Your task to perform on an android device: Search for Mexican restaurants on Maps Image 0: 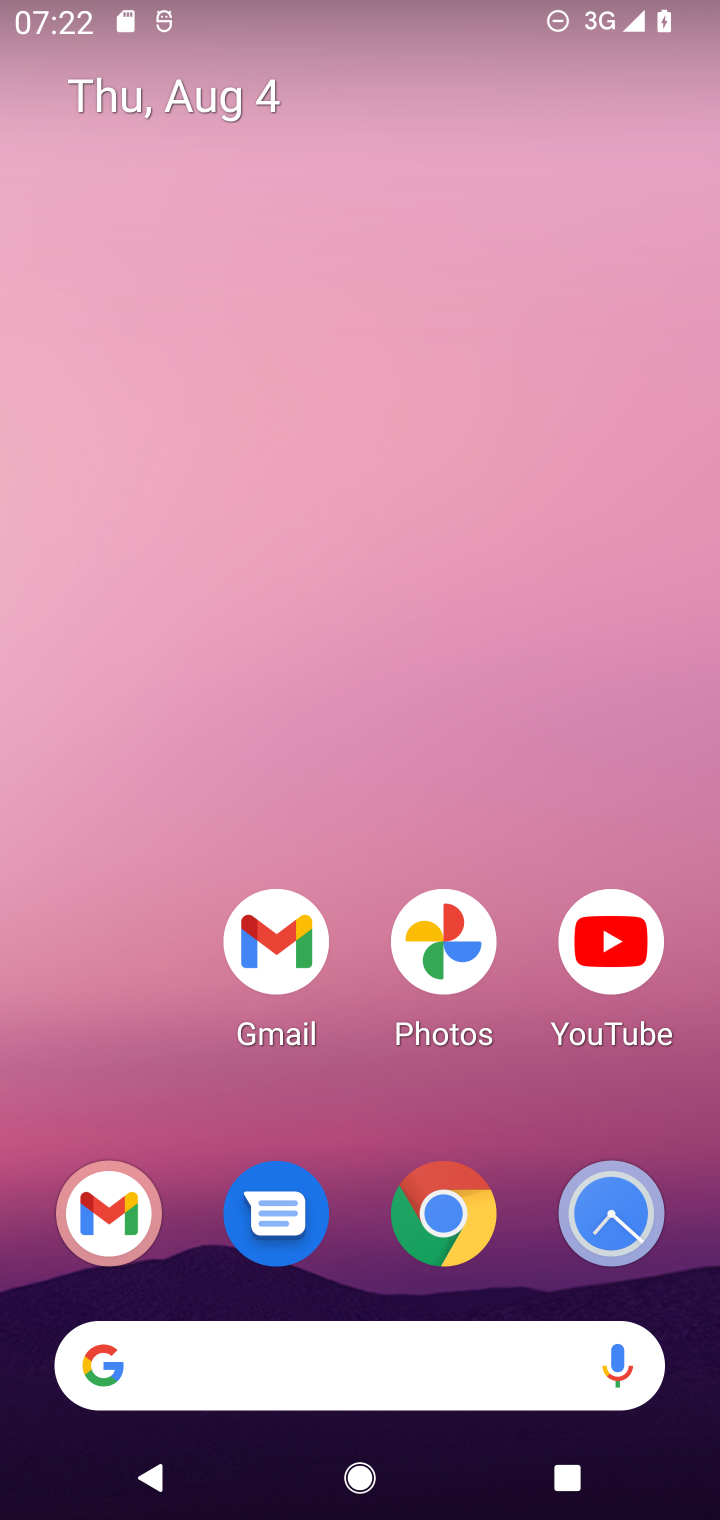
Step 0: drag from (186, 1109) to (199, 291)
Your task to perform on an android device: Search for Mexican restaurants on Maps Image 1: 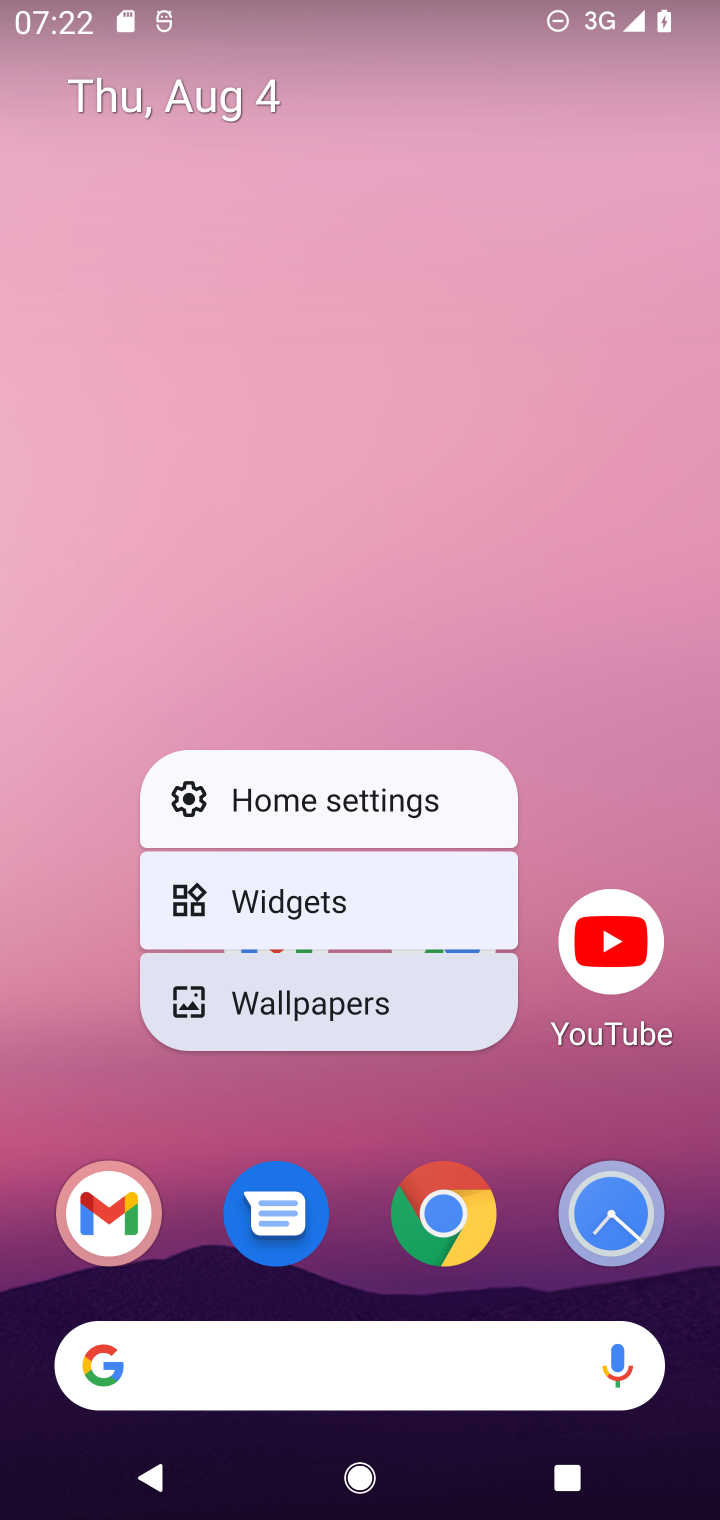
Step 1: click (85, 915)
Your task to perform on an android device: Search for Mexican restaurants on Maps Image 2: 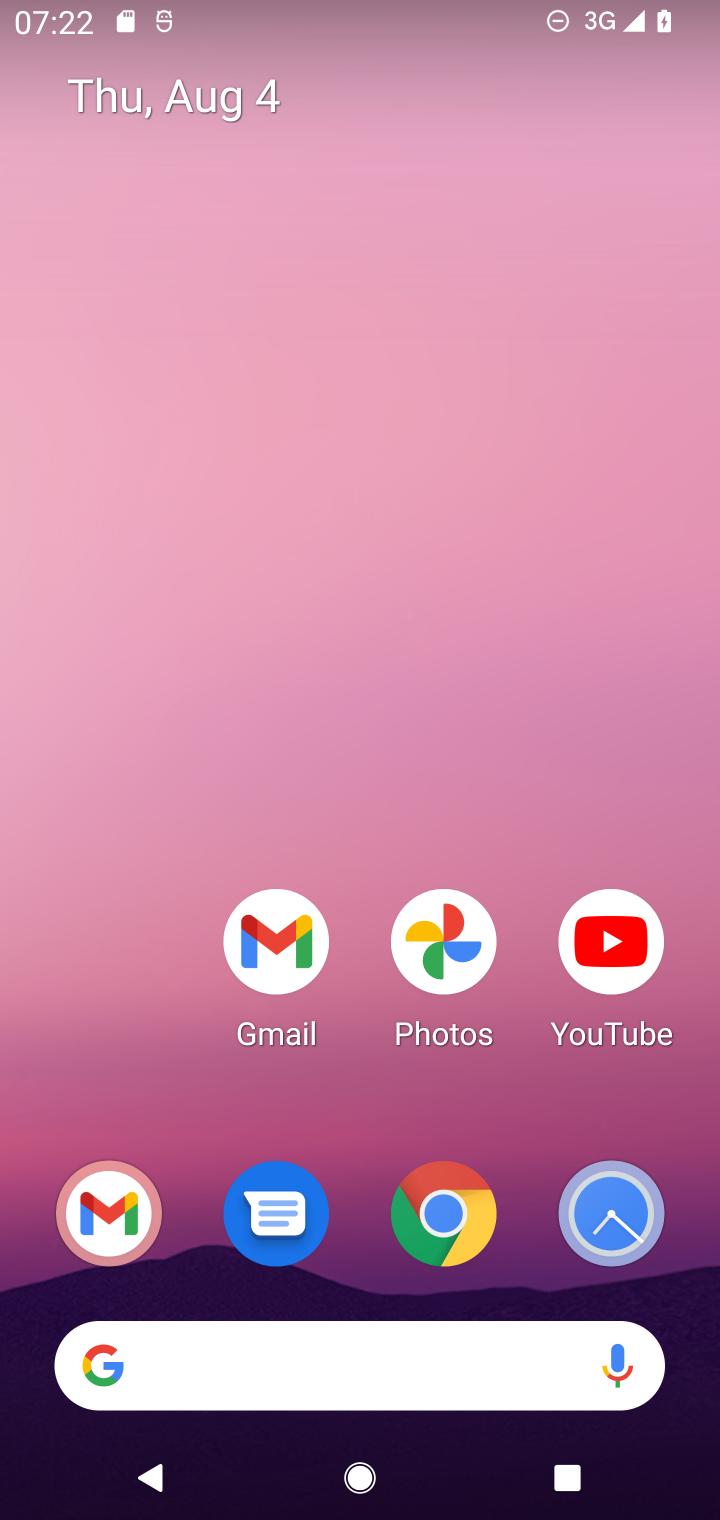
Step 2: drag from (156, 1082) to (193, 312)
Your task to perform on an android device: Search for Mexican restaurants on Maps Image 3: 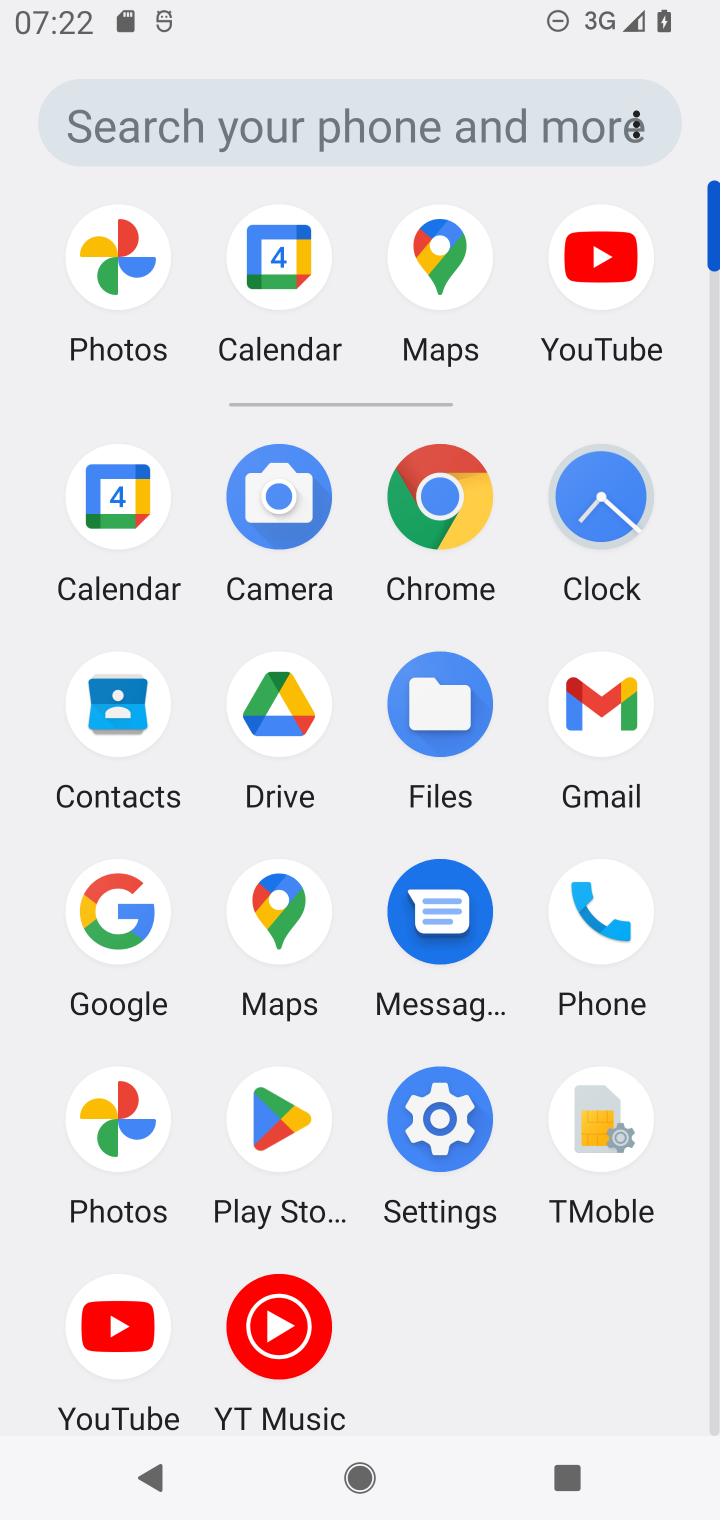
Step 3: click (455, 263)
Your task to perform on an android device: Search for Mexican restaurants on Maps Image 4: 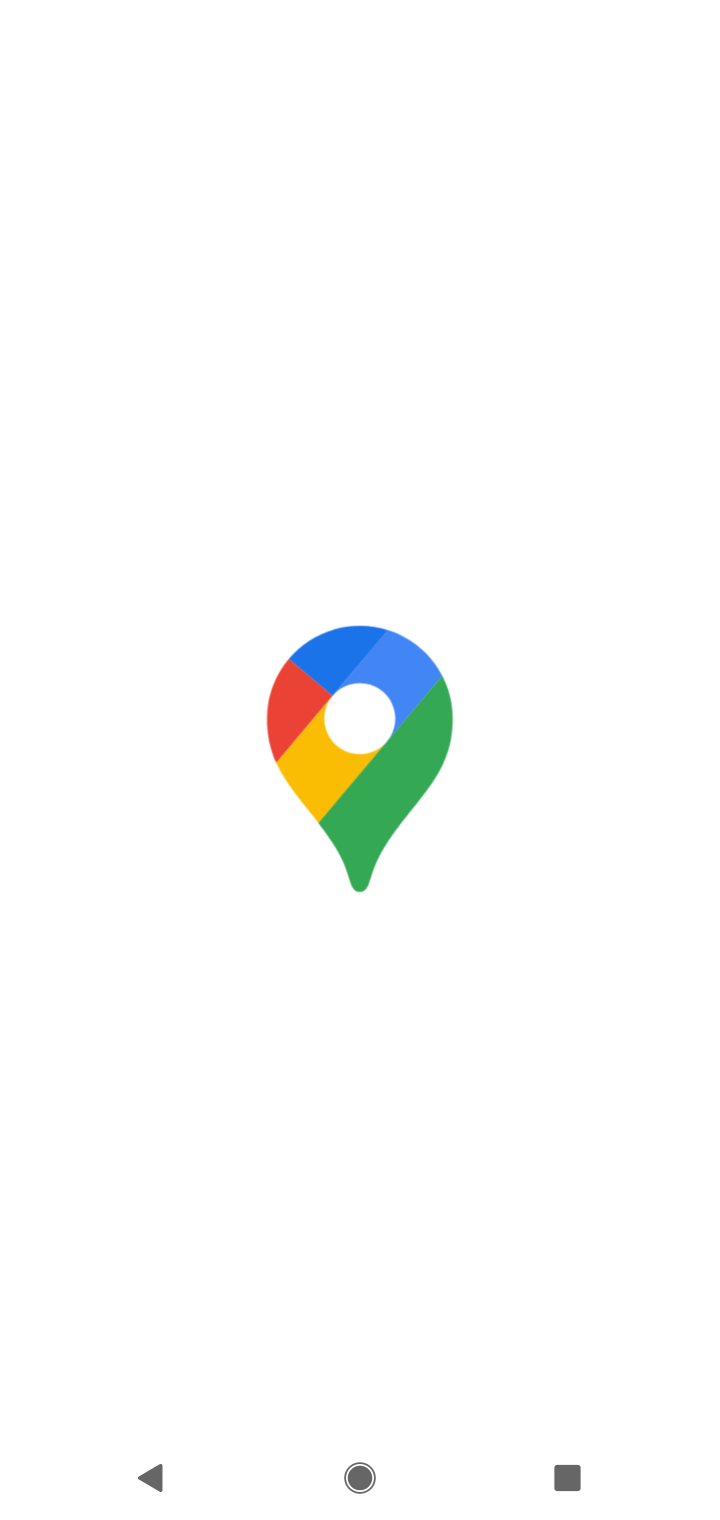
Step 4: task complete